Your task to perform on an android device: Show me productivity apps on the Play Store Image 0: 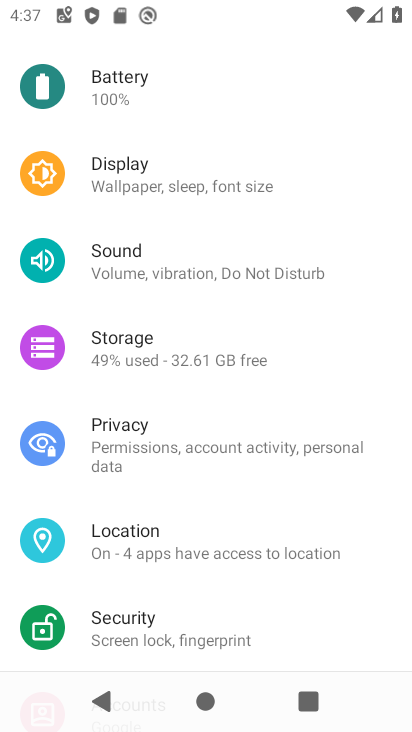
Step 0: press home button
Your task to perform on an android device: Show me productivity apps on the Play Store Image 1: 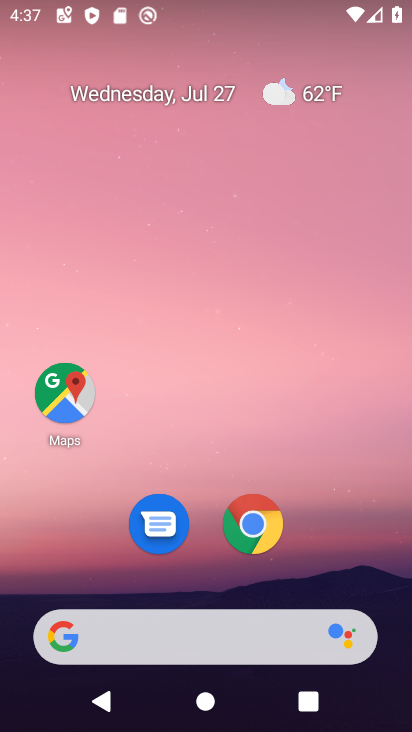
Step 1: drag from (344, 537) to (338, 47)
Your task to perform on an android device: Show me productivity apps on the Play Store Image 2: 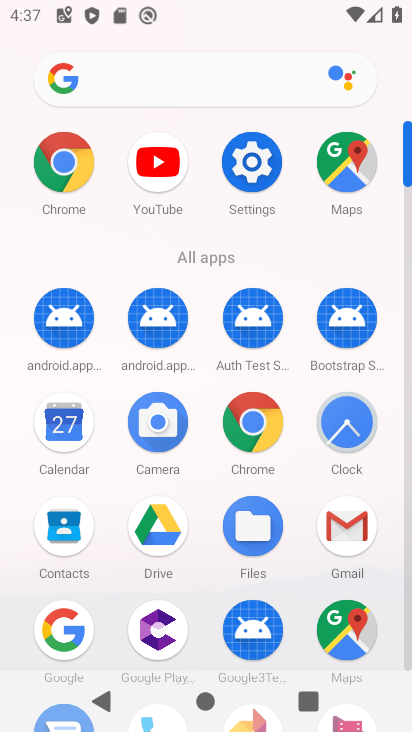
Step 2: drag from (196, 539) to (248, 132)
Your task to perform on an android device: Show me productivity apps on the Play Store Image 3: 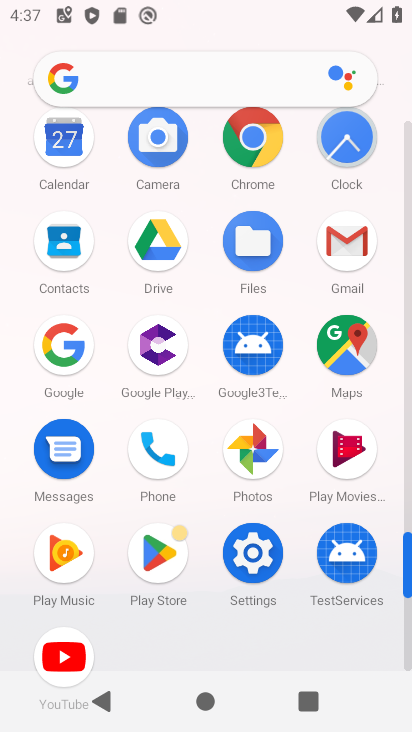
Step 3: click (154, 549)
Your task to perform on an android device: Show me productivity apps on the Play Store Image 4: 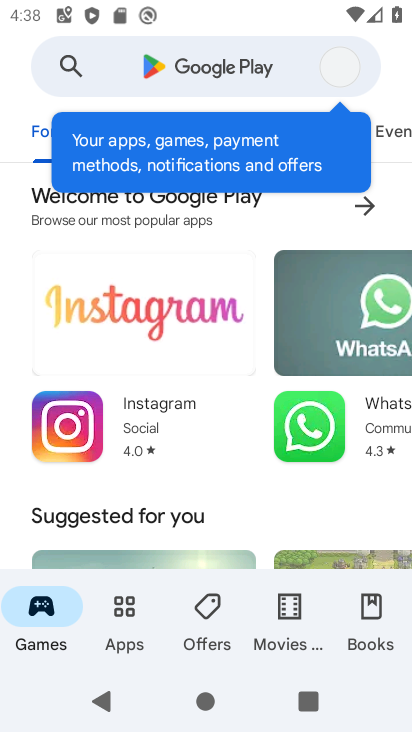
Step 4: click (136, 615)
Your task to perform on an android device: Show me productivity apps on the Play Store Image 5: 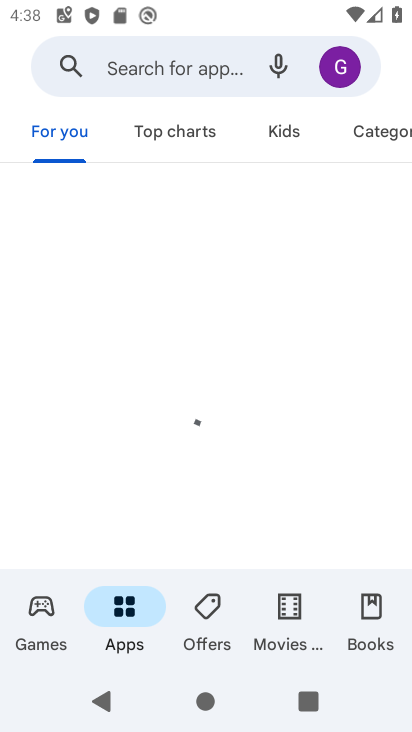
Step 5: click (381, 123)
Your task to perform on an android device: Show me productivity apps on the Play Store Image 6: 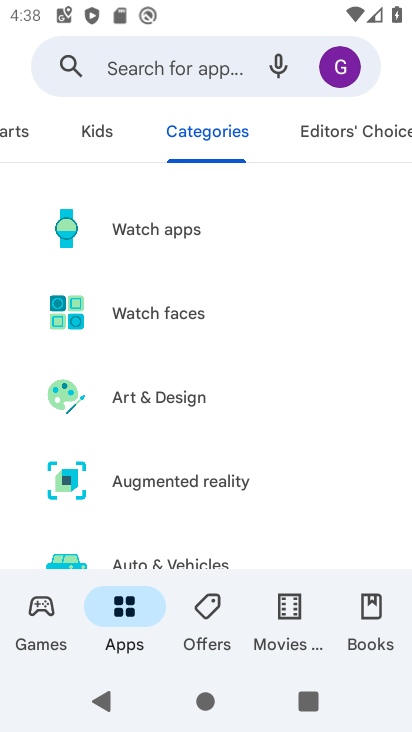
Step 6: drag from (299, 496) to (320, 133)
Your task to perform on an android device: Show me productivity apps on the Play Store Image 7: 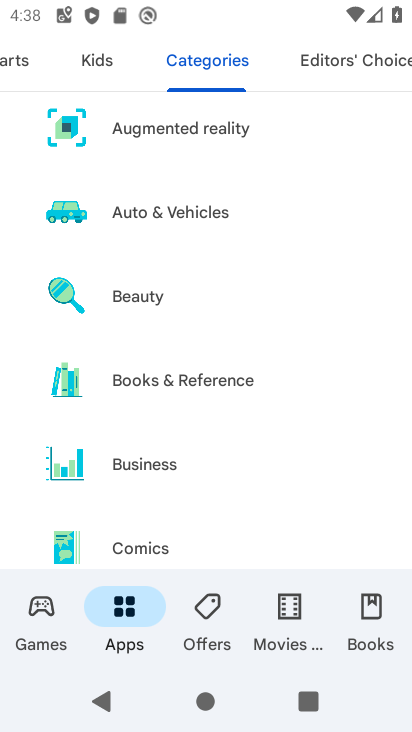
Step 7: drag from (274, 467) to (282, 137)
Your task to perform on an android device: Show me productivity apps on the Play Store Image 8: 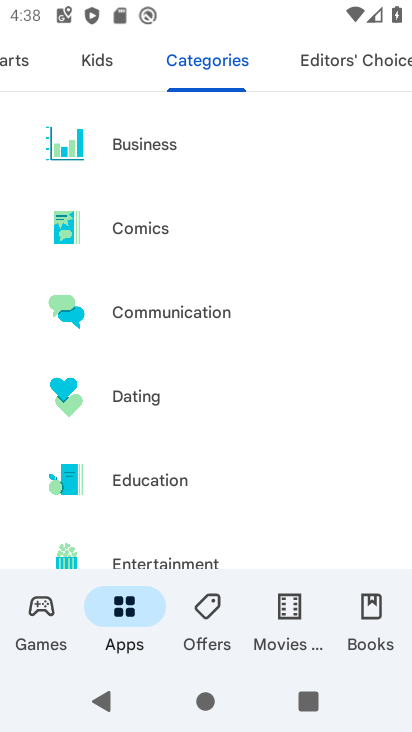
Step 8: drag from (247, 493) to (293, 143)
Your task to perform on an android device: Show me productivity apps on the Play Store Image 9: 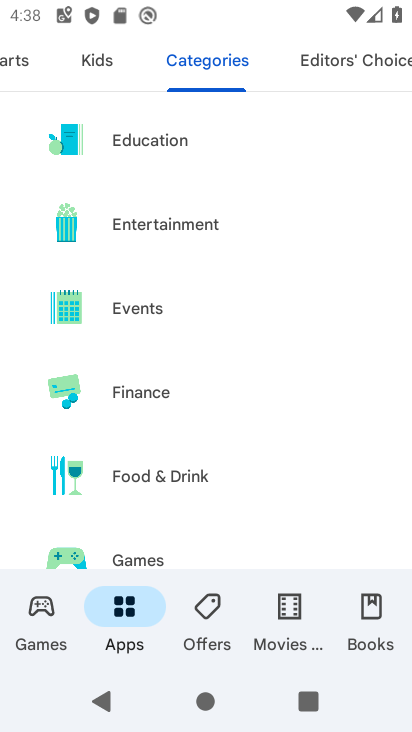
Step 9: drag from (254, 481) to (297, 105)
Your task to perform on an android device: Show me productivity apps on the Play Store Image 10: 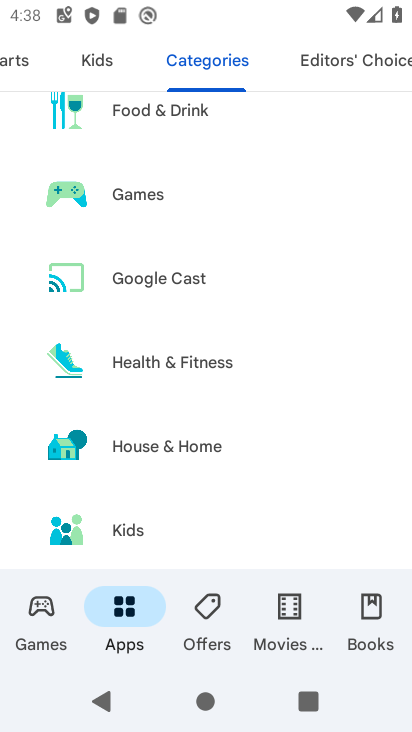
Step 10: drag from (249, 398) to (266, 171)
Your task to perform on an android device: Show me productivity apps on the Play Store Image 11: 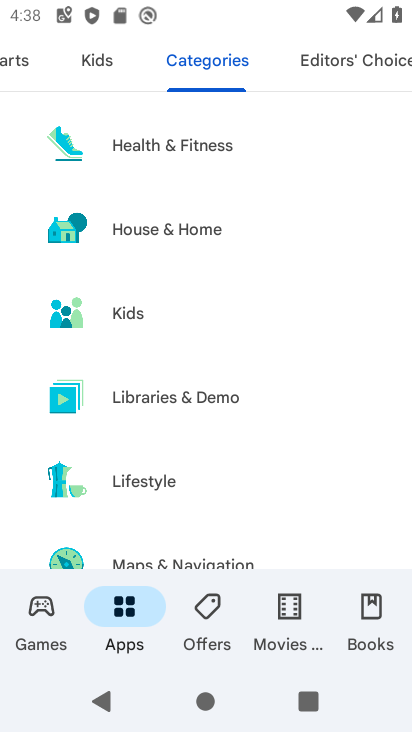
Step 11: drag from (246, 342) to (260, 152)
Your task to perform on an android device: Show me productivity apps on the Play Store Image 12: 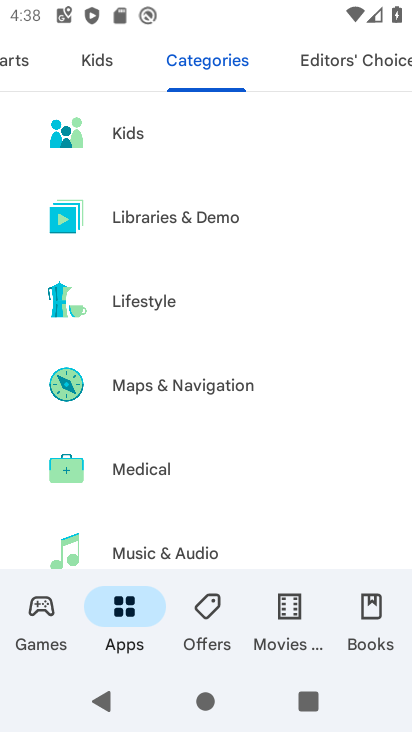
Step 12: drag from (259, 439) to (276, 130)
Your task to perform on an android device: Show me productivity apps on the Play Store Image 13: 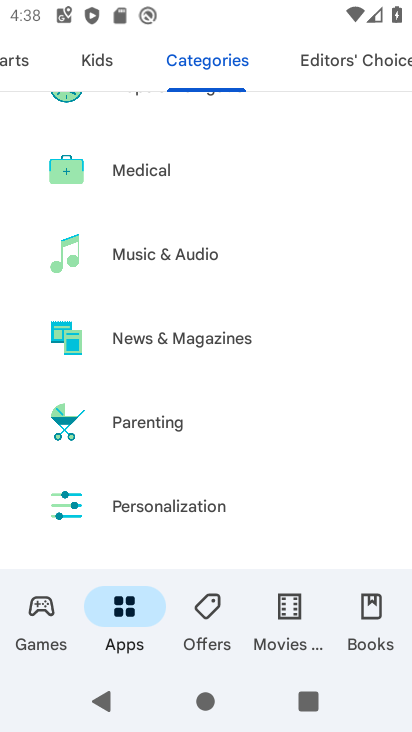
Step 13: drag from (235, 423) to (264, 165)
Your task to perform on an android device: Show me productivity apps on the Play Store Image 14: 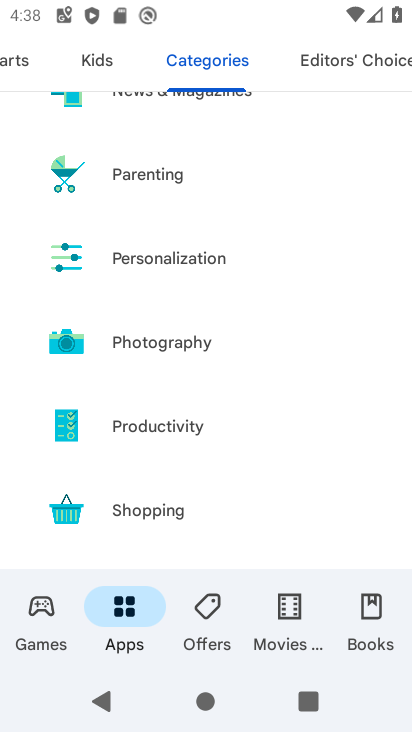
Step 14: click (182, 423)
Your task to perform on an android device: Show me productivity apps on the Play Store Image 15: 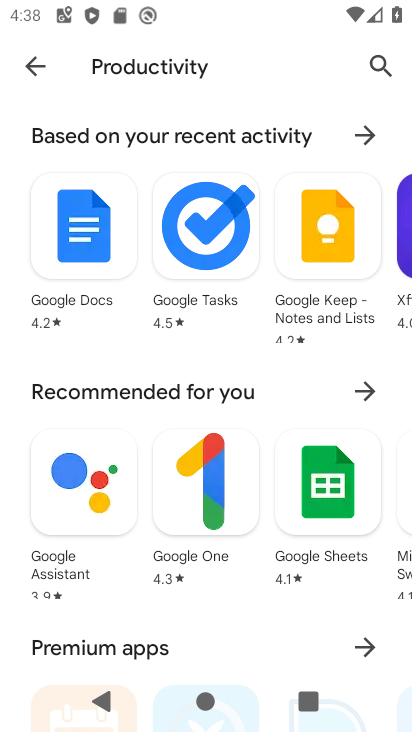
Step 15: drag from (285, 377) to (288, 200)
Your task to perform on an android device: Show me productivity apps on the Play Store Image 16: 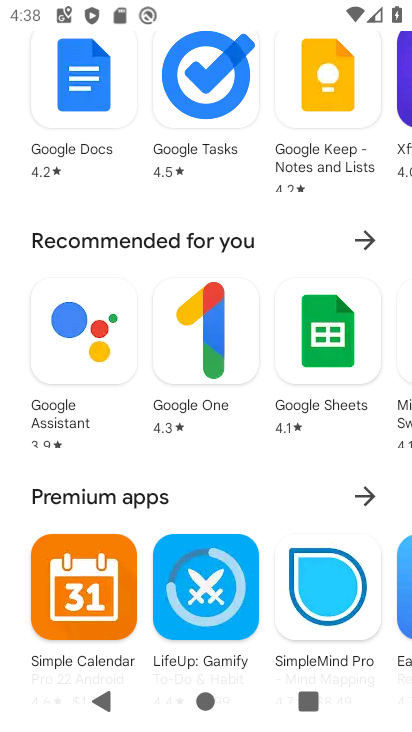
Step 16: drag from (264, 562) to (315, 148)
Your task to perform on an android device: Show me productivity apps on the Play Store Image 17: 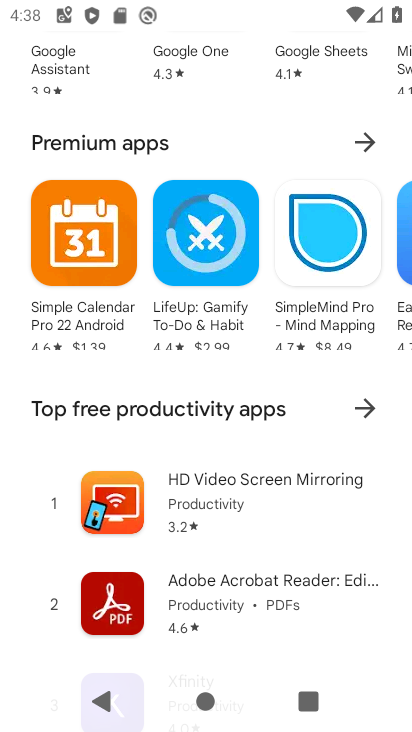
Step 17: drag from (308, 159) to (348, 525)
Your task to perform on an android device: Show me productivity apps on the Play Store Image 18: 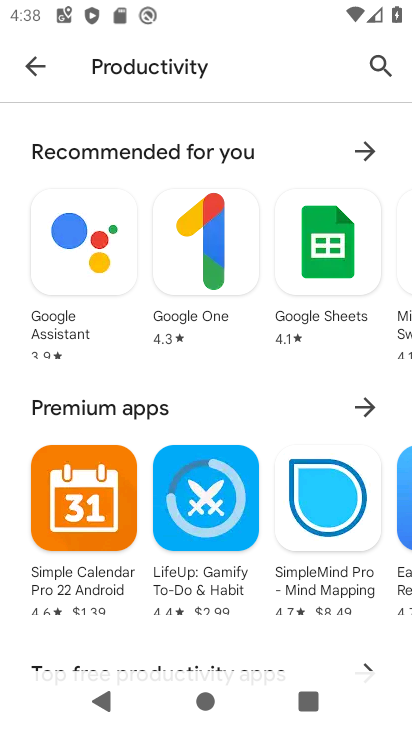
Step 18: drag from (248, 221) to (244, 543)
Your task to perform on an android device: Show me productivity apps on the Play Store Image 19: 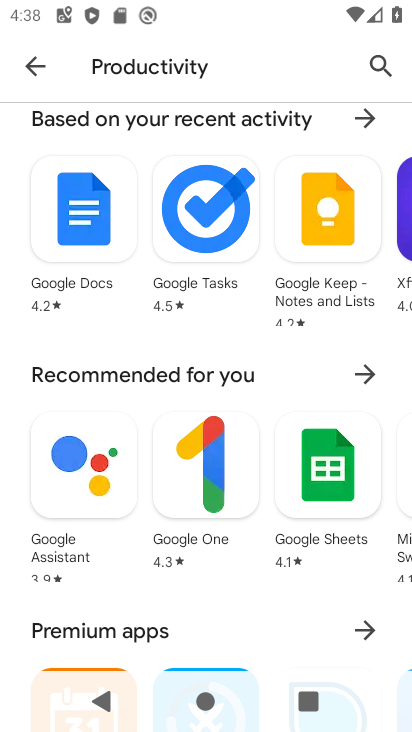
Step 19: drag from (272, 376) to (285, 547)
Your task to perform on an android device: Show me productivity apps on the Play Store Image 20: 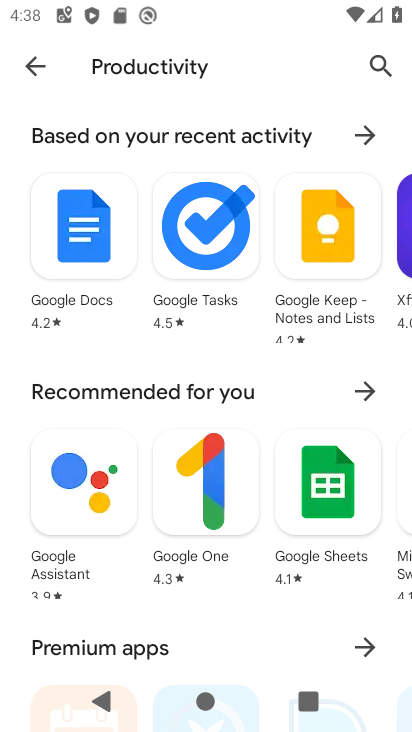
Step 20: drag from (292, 550) to (312, 34)
Your task to perform on an android device: Show me productivity apps on the Play Store Image 21: 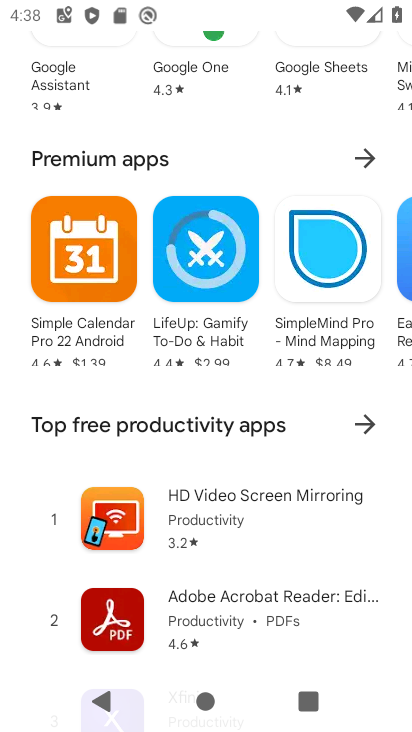
Step 21: drag from (287, 551) to (314, 133)
Your task to perform on an android device: Show me productivity apps on the Play Store Image 22: 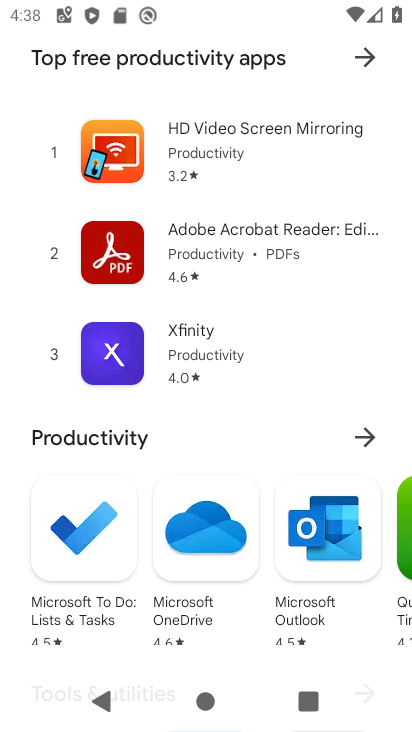
Step 22: drag from (291, 374) to (290, 162)
Your task to perform on an android device: Show me productivity apps on the Play Store Image 23: 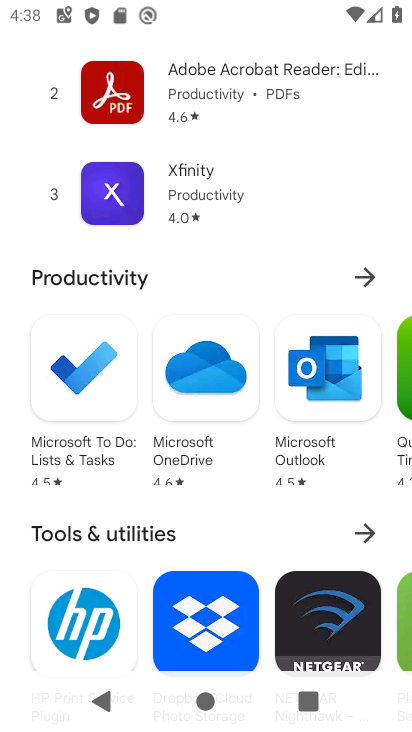
Step 23: click (367, 273)
Your task to perform on an android device: Show me productivity apps on the Play Store Image 24: 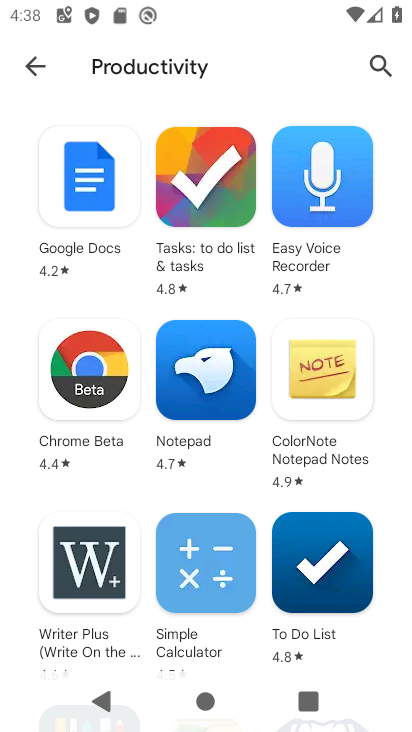
Step 24: task complete